Your task to perform on an android device: turn off sleep mode Image 0: 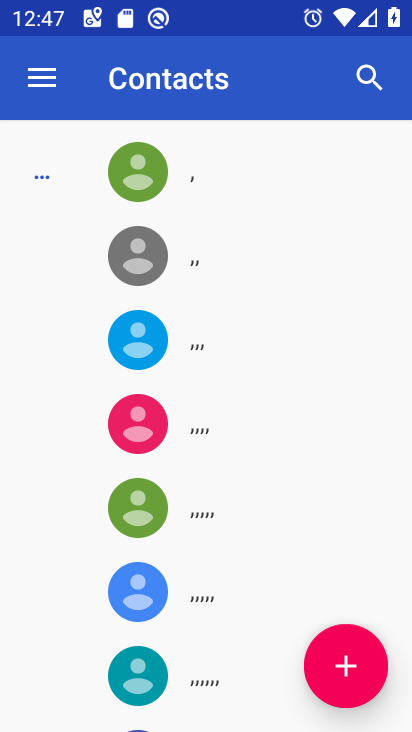
Step 0: press home button
Your task to perform on an android device: turn off sleep mode Image 1: 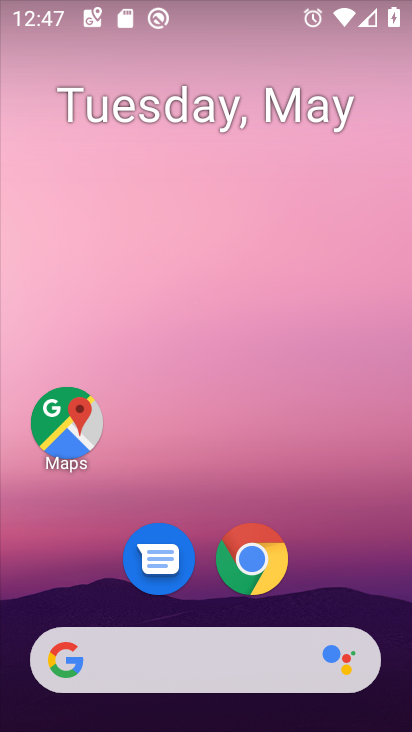
Step 1: drag from (361, 601) to (311, 147)
Your task to perform on an android device: turn off sleep mode Image 2: 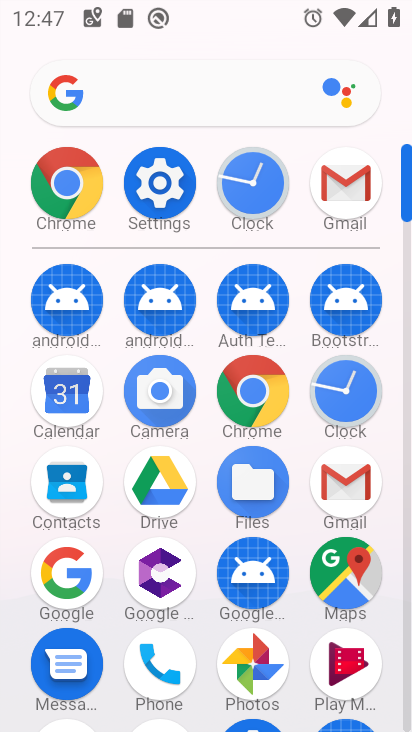
Step 2: click (176, 196)
Your task to perform on an android device: turn off sleep mode Image 3: 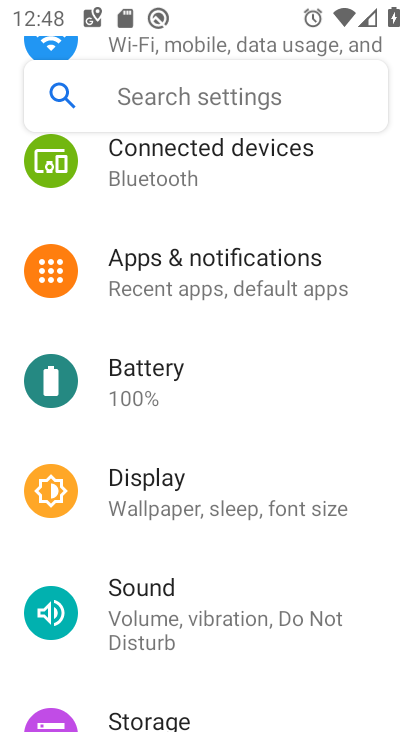
Step 3: click (227, 530)
Your task to perform on an android device: turn off sleep mode Image 4: 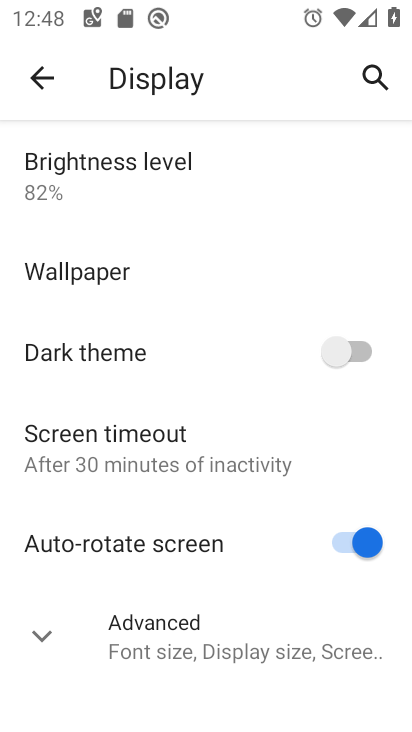
Step 4: click (268, 648)
Your task to perform on an android device: turn off sleep mode Image 5: 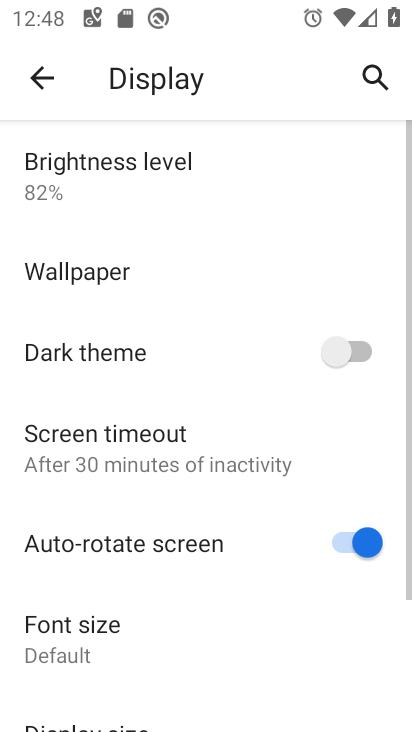
Step 5: task complete